Your task to perform on an android device: change the clock style Image 0: 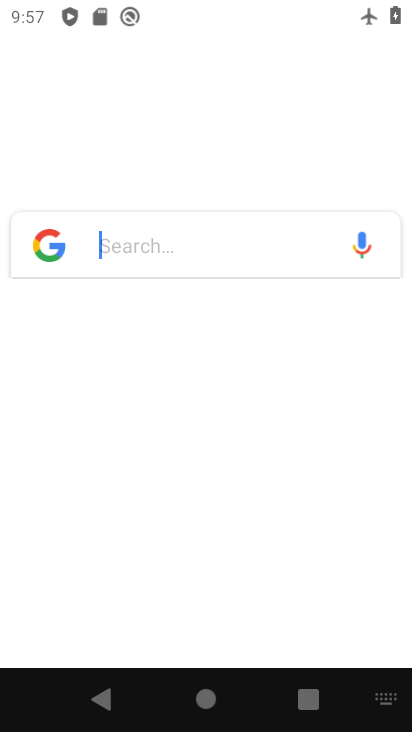
Step 0: click (252, 512)
Your task to perform on an android device: change the clock style Image 1: 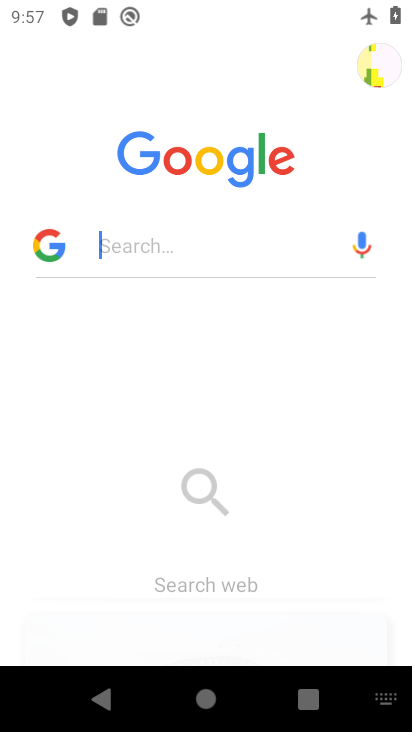
Step 1: press home button
Your task to perform on an android device: change the clock style Image 2: 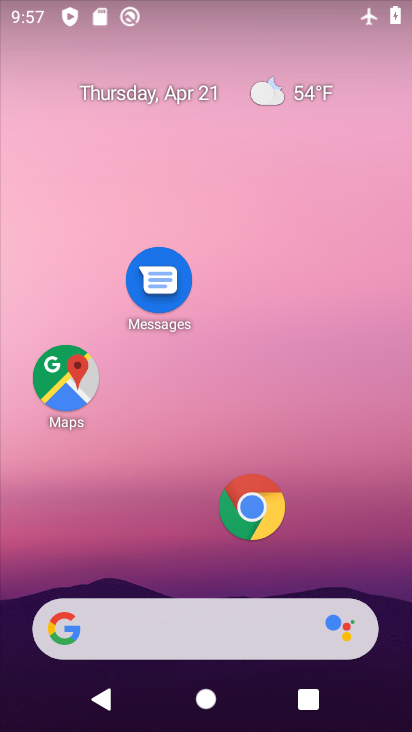
Step 2: drag from (173, 497) to (170, 63)
Your task to perform on an android device: change the clock style Image 3: 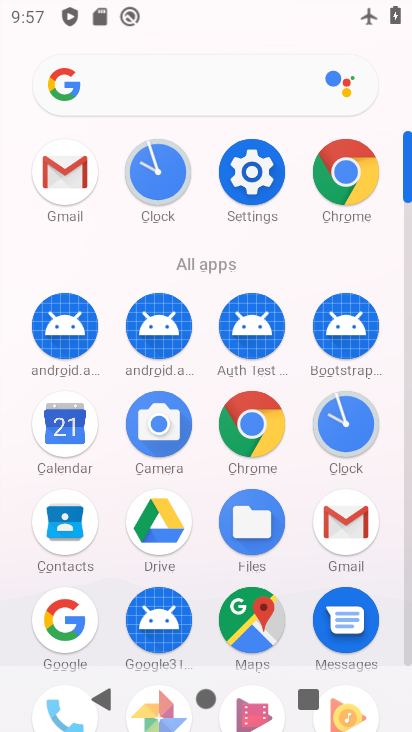
Step 3: click (343, 422)
Your task to perform on an android device: change the clock style Image 4: 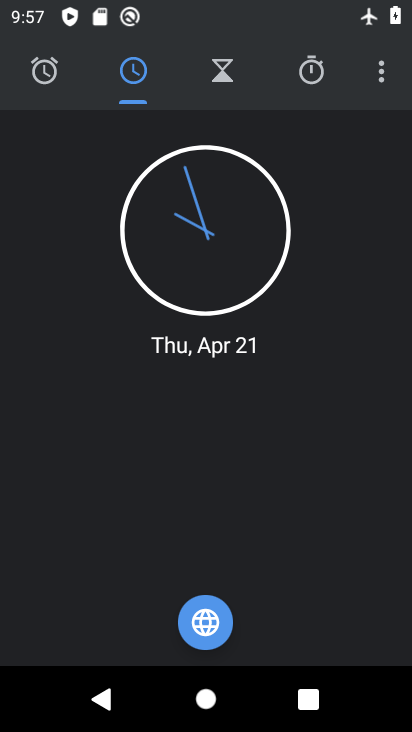
Step 4: click (375, 72)
Your task to perform on an android device: change the clock style Image 5: 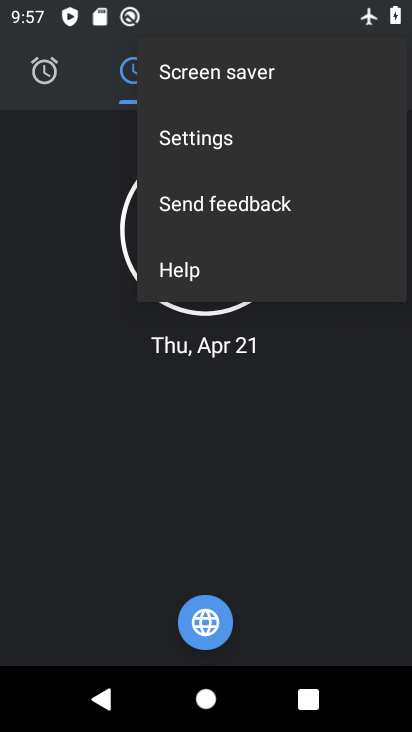
Step 5: click (229, 140)
Your task to perform on an android device: change the clock style Image 6: 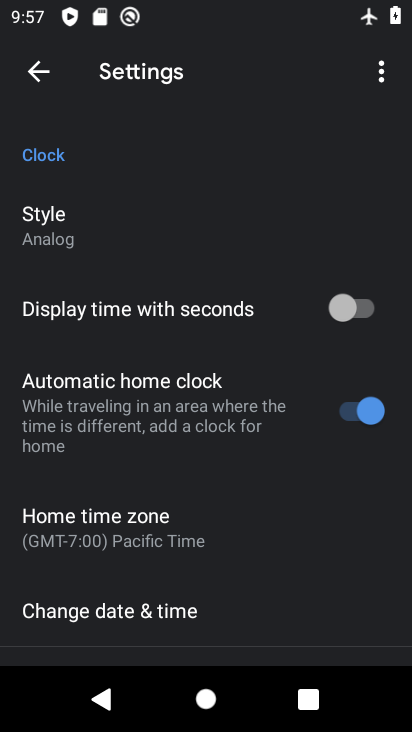
Step 6: click (83, 221)
Your task to perform on an android device: change the clock style Image 7: 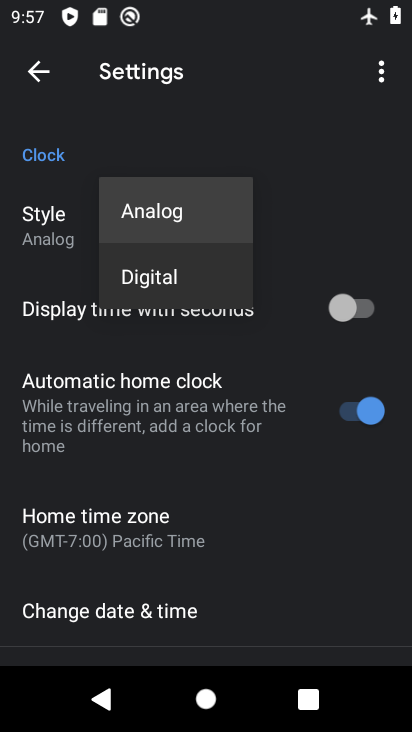
Step 7: click (146, 272)
Your task to perform on an android device: change the clock style Image 8: 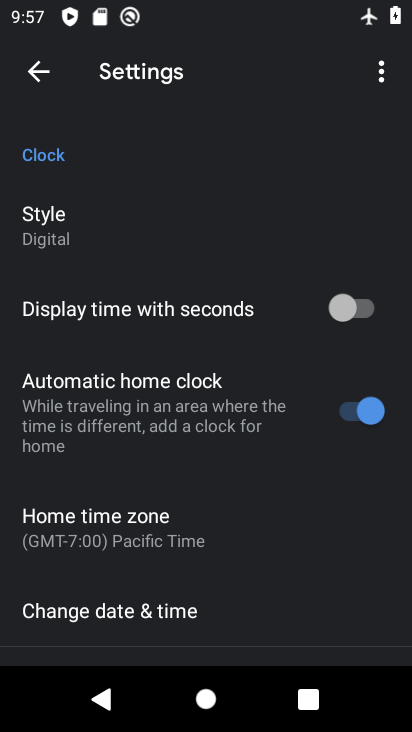
Step 8: task complete